Your task to perform on an android device: allow cookies in the chrome app Image 0: 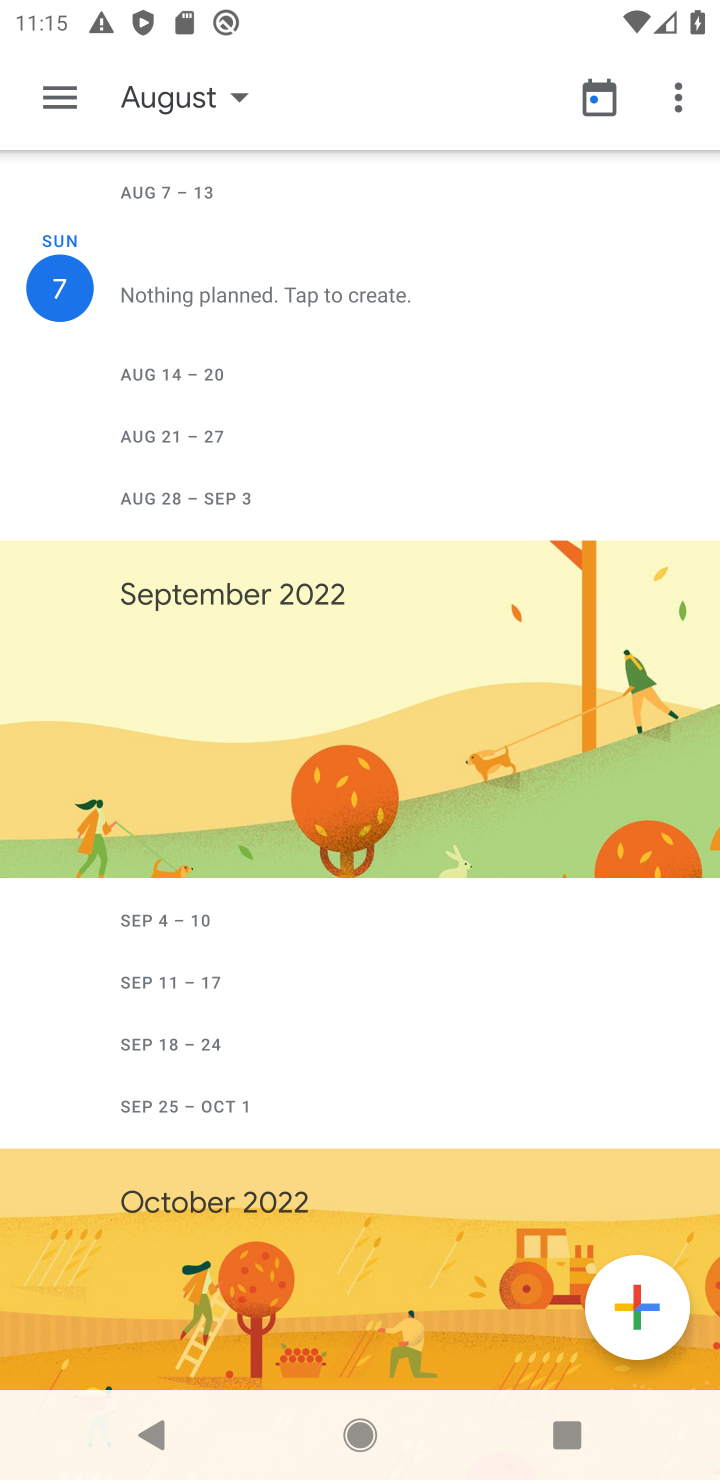
Step 0: press home button
Your task to perform on an android device: allow cookies in the chrome app Image 1: 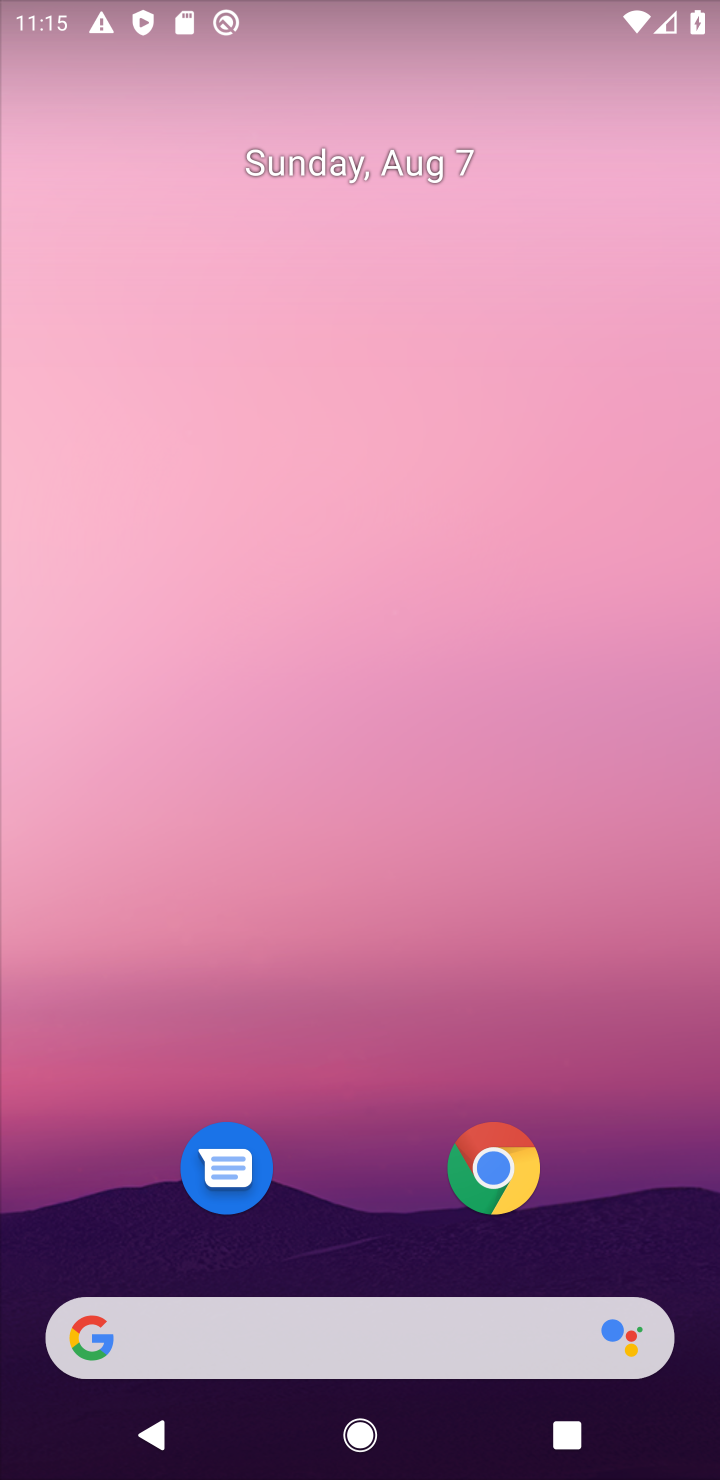
Step 1: click (470, 1170)
Your task to perform on an android device: allow cookies in the chrome app Image 2: 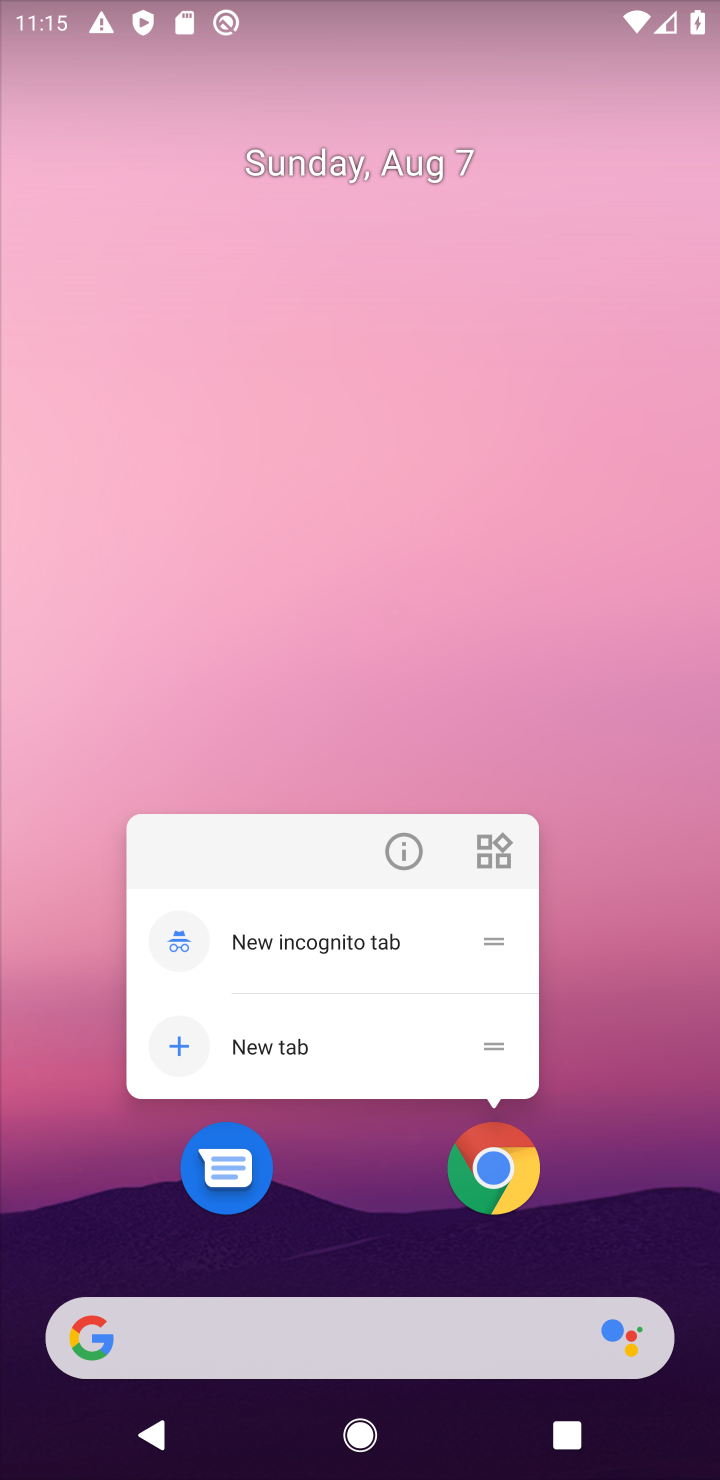
Step 2: click (478, 1173)
Your task to perform on an android device: allow cookies in the chrome app Image 3: 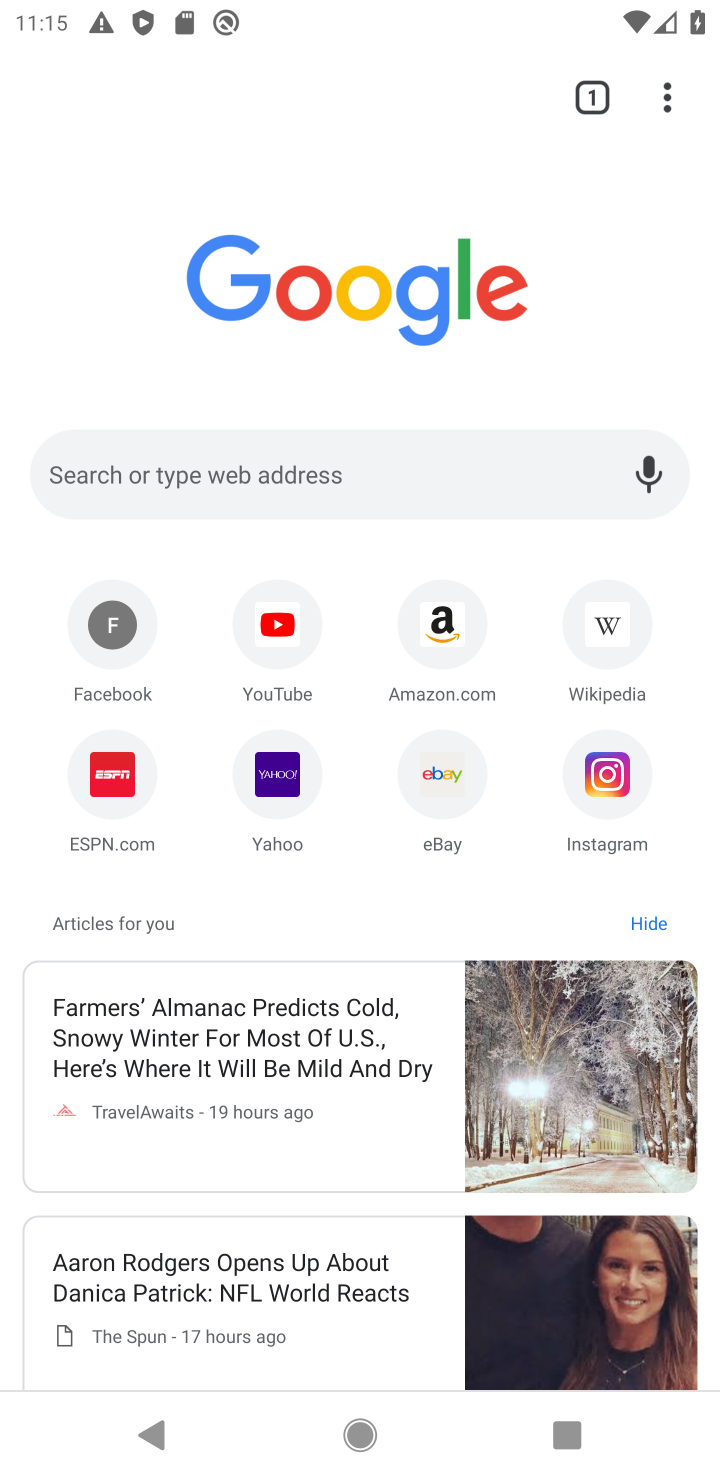
Step 3: click (670, 103)
Your task to perform on an android device: allow cookies in the chrome app Image 4: 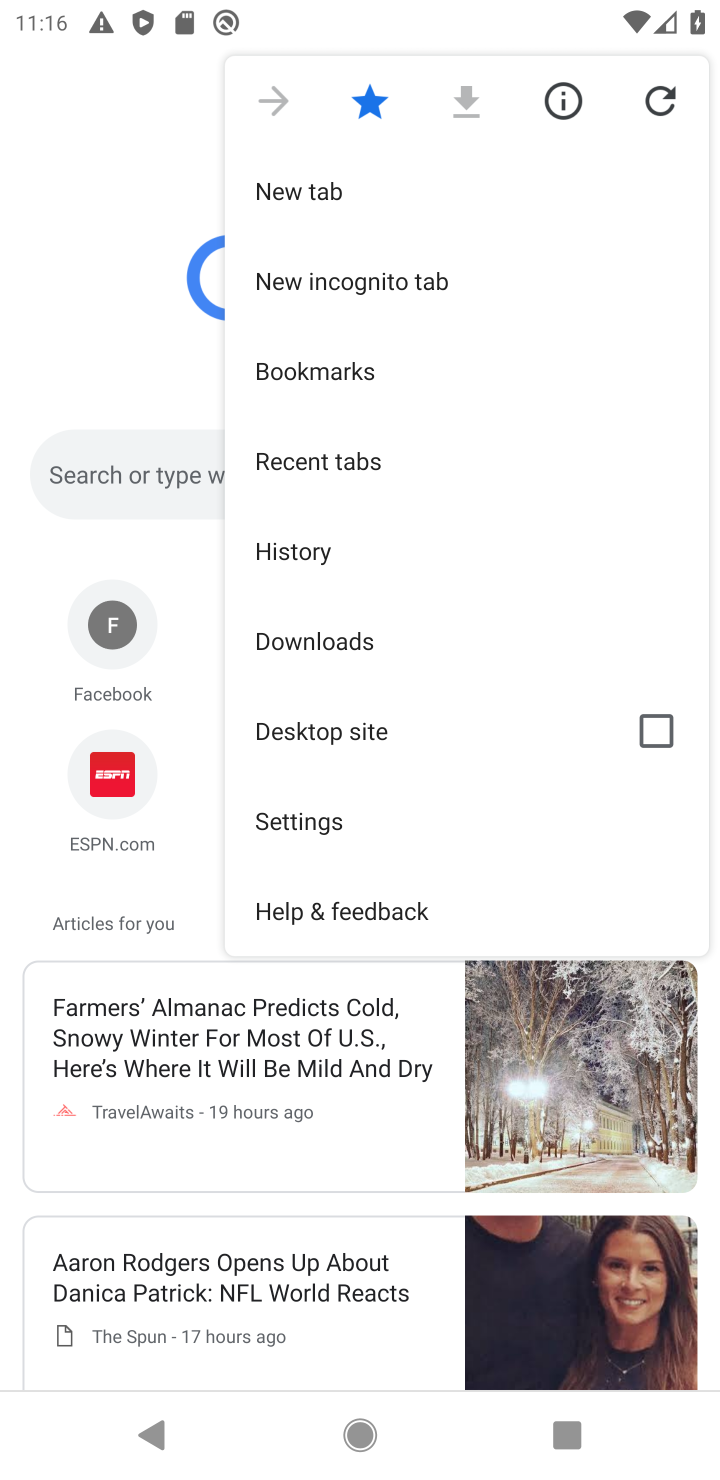
Step 4: click (281, 821)
Your task to perform on an android device: allow cookies in the chrome app Image 5: 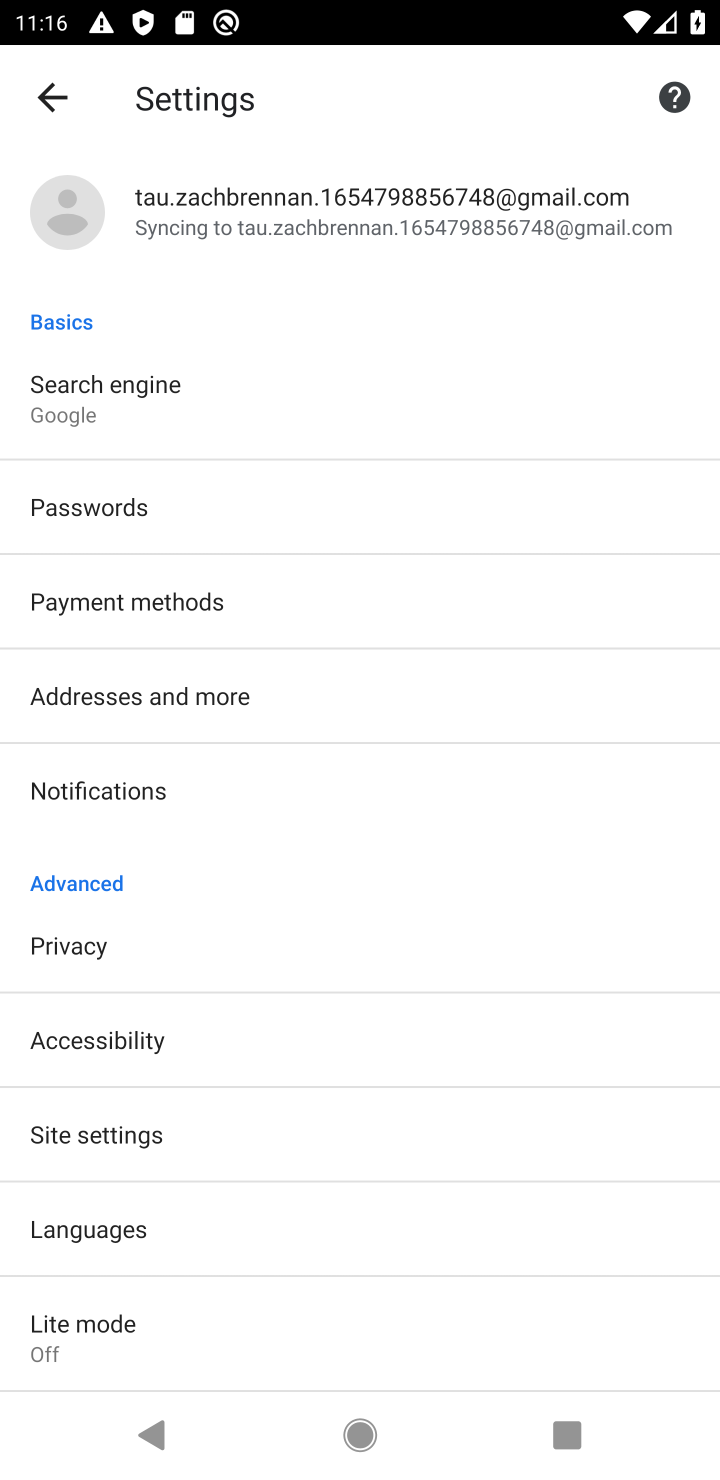
Step 5: click (39, 1131)
Your task to perform on an android device: allow cookies in the chrome app Image 6: 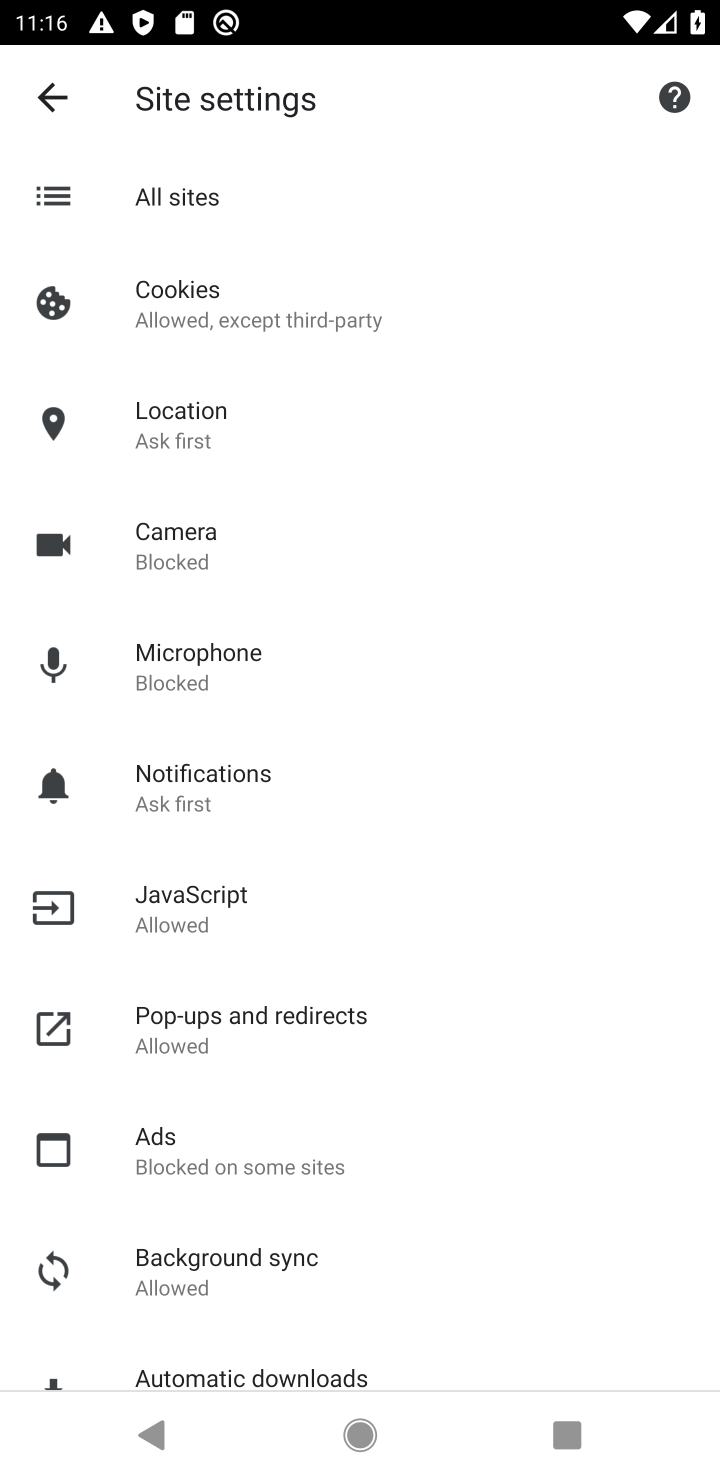
Step 6: click (240, 299)
Your task to perform on an android device: allow cookies in the chrome app Image 7: 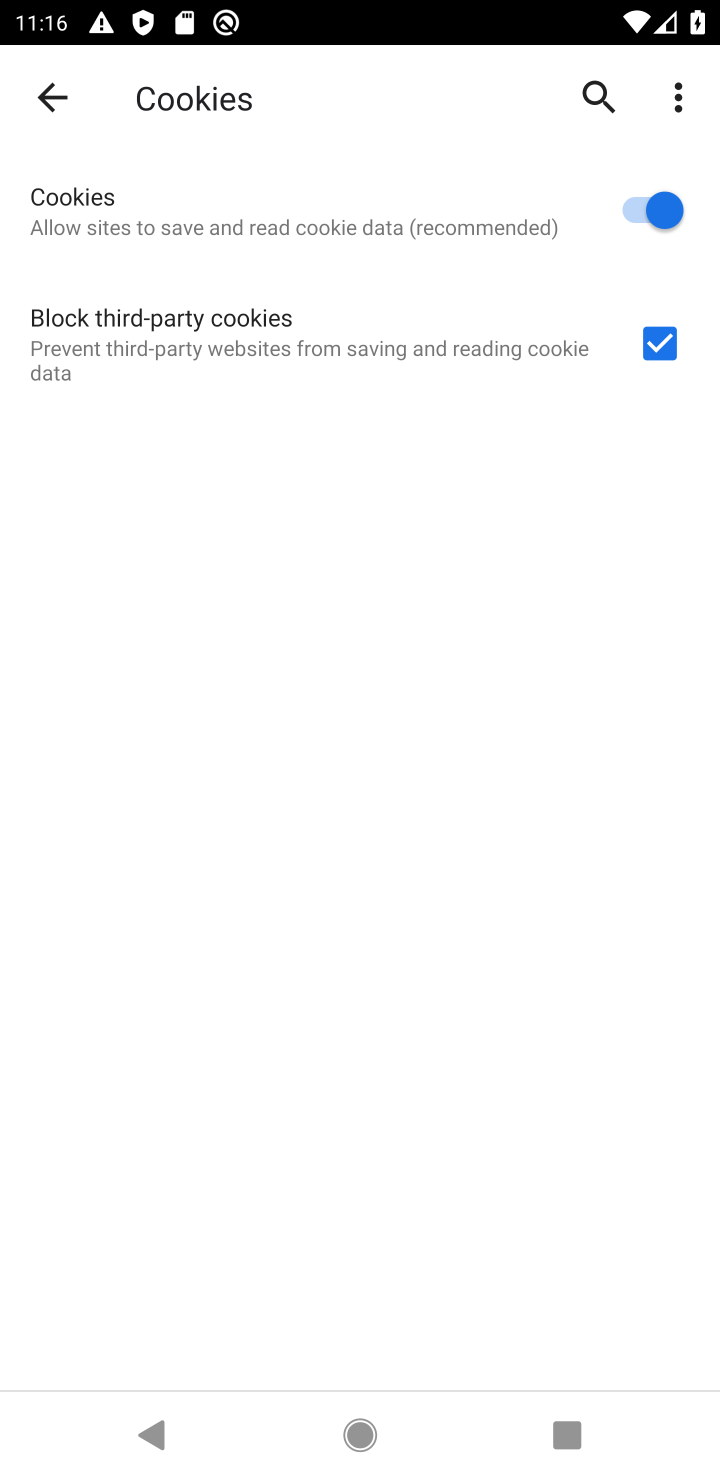
Step 7: task complete